Your task to perform on an android device: empty trash in the gmail app Image 0: 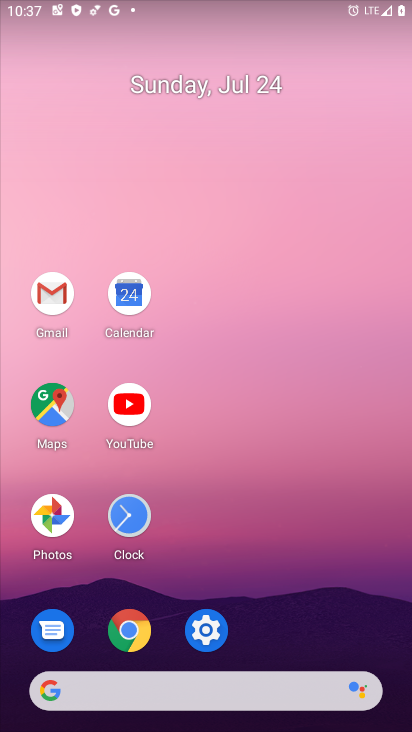
Step 0: click (51, 297)
Your task to perform on an android device: empty trash in the gmail app Image 1: 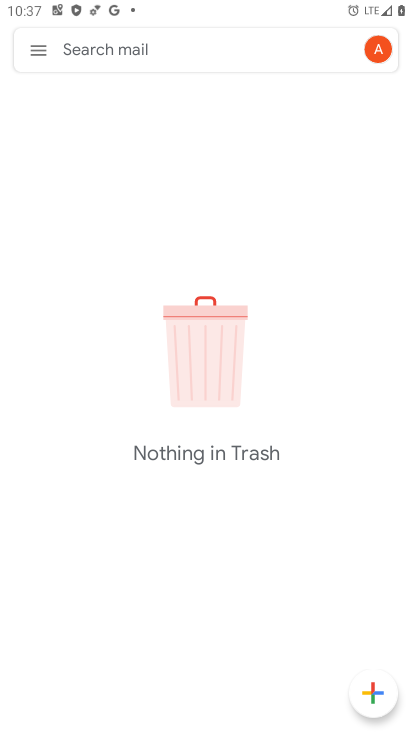
Step 1: click (38, 51)
Your task to perform on an android device: empty trash in the gmail app Image 2: 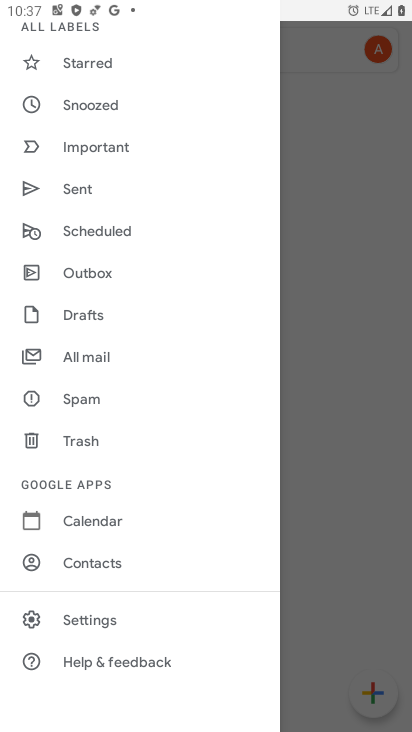
Step 2: click (78, 435)
Your task to perform on an android device: empty trash in the gmail app Image 3: 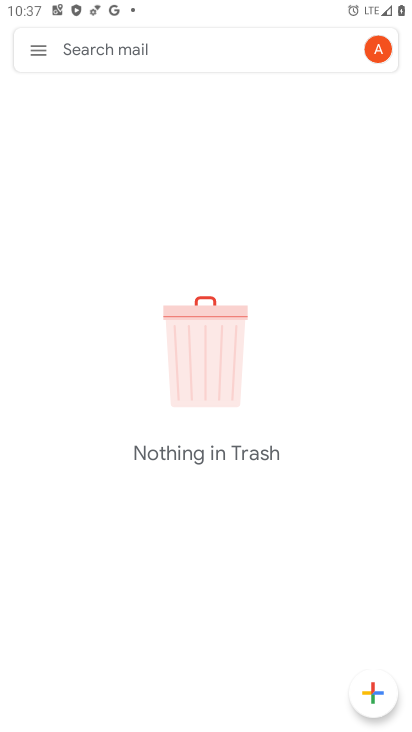
Step 3: task complete